Your task to perform on an android device: add a contact Image 0: 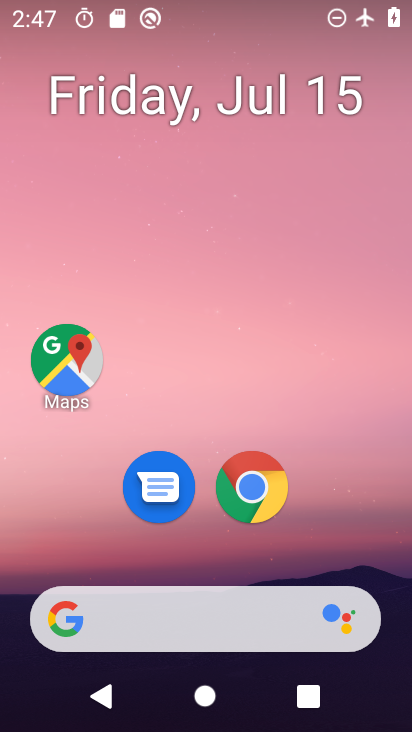
Step 0: drag from (184, 594) to (276, 82)
Your task to perform on an android device: add a contact Image 1: 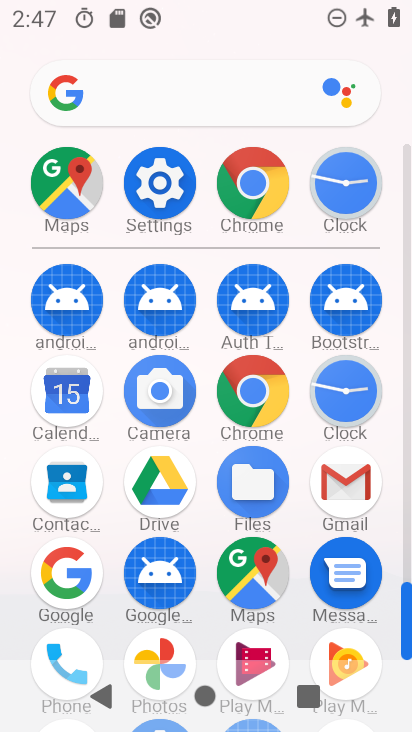
Step 1: click (76, 512)
Your task to perform on an android device: add a contact Image 2: 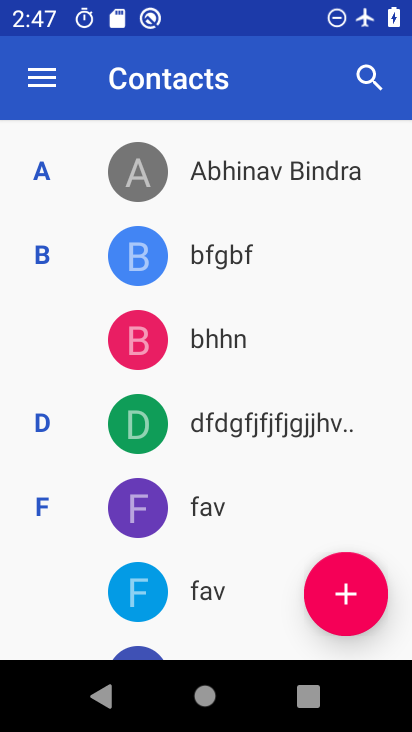
Step 2: click (342, 591)
Your task to perform on an android device: add a contact Image 3: 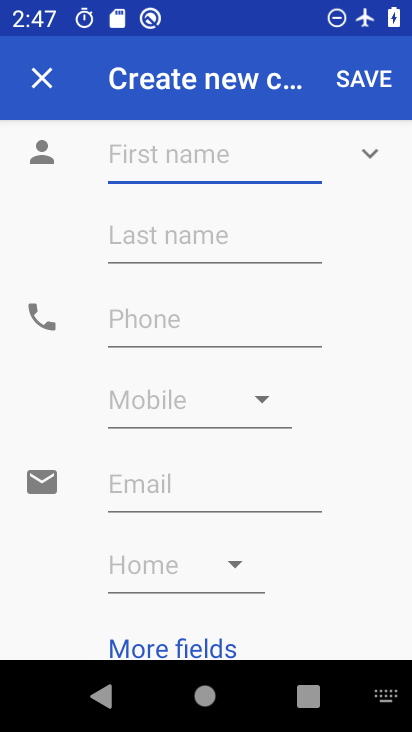
Step 3: type "vxfbdfv"
Your task to perform on an android device: add a contact Image 4: 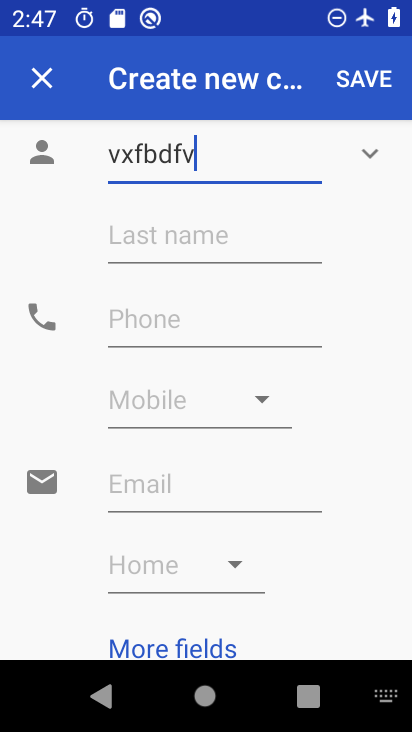
Step 4: click (160, 320)
Your task to perform on an android device: add a contact Image 5: 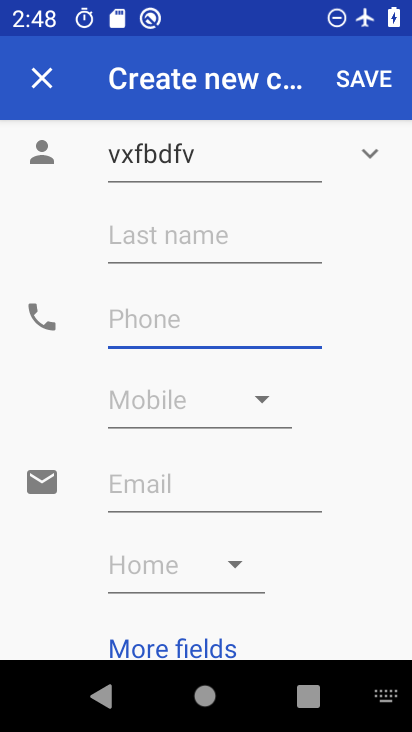
Step 5: type "34567890"
Your task to perform on an android device: add a contact Image 6: 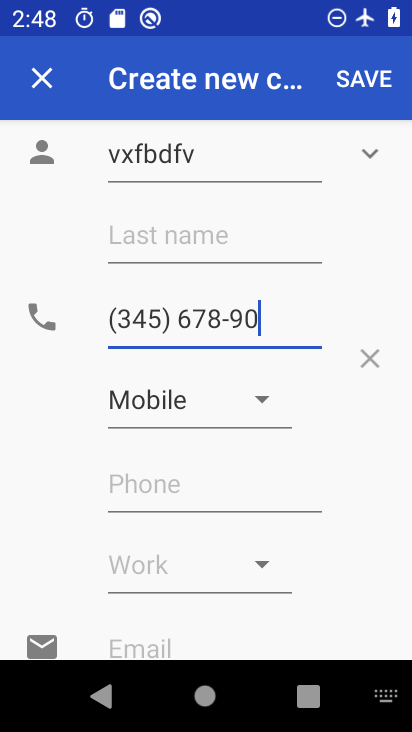
Step 6: click (377, 88)
Your task to perform on an android device: add a contact Image 7: 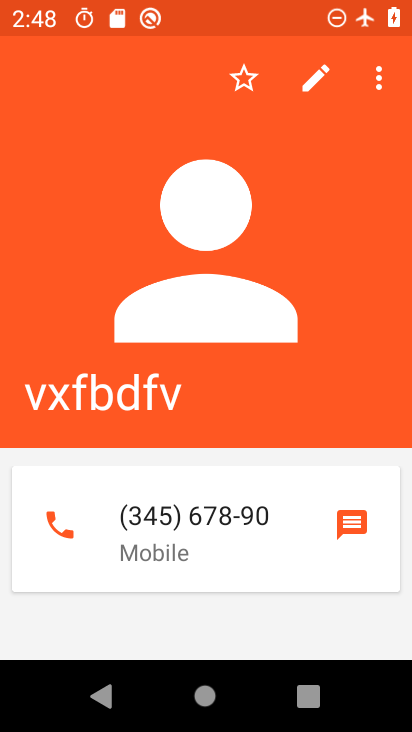
Step 7: task complete